Your task to perform on an android device: Show the shopping cart on newegg. Image 0: 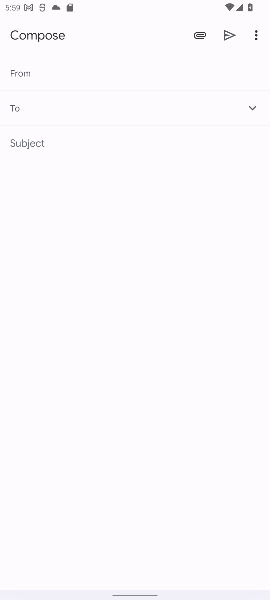
Step 0: press home button
Your task to perform on an android device: Show the shopping cart on newegg. Image 1: 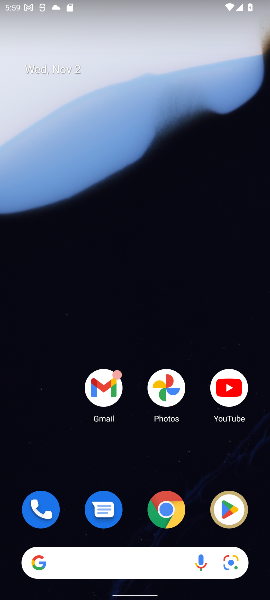
Step 1: click (120, 561)
Your task to perform on an android device: Show the shopping cart on newegg. Image 2: 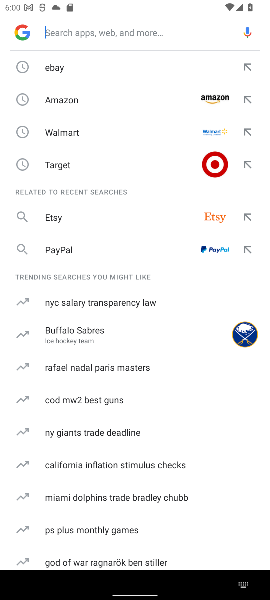
Step 2: type "newegg"
Your task to perform on an android device: Show the shopping cart on newegg. Image 3: 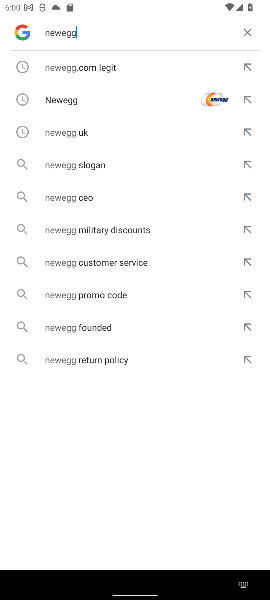
Step 3: click (77, 97)
Your task to perform on an android device: Show the shopping cart on newegg. Image 4: 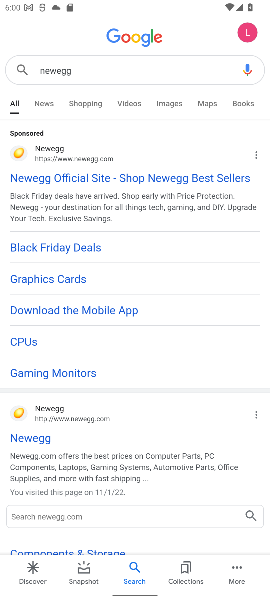
Step 4: click (33, 435)
Your task to perform on an android device: Show the shopping cart on newegg. Image 5: 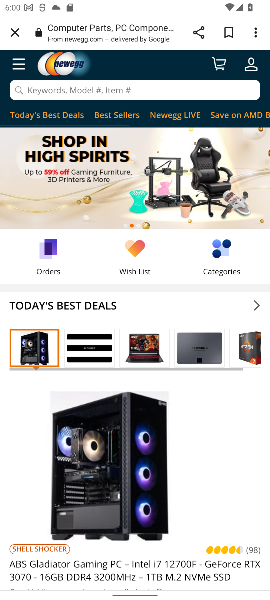
Step 5: task complete